Your task to perform on an android device: turn on location history Image 0: 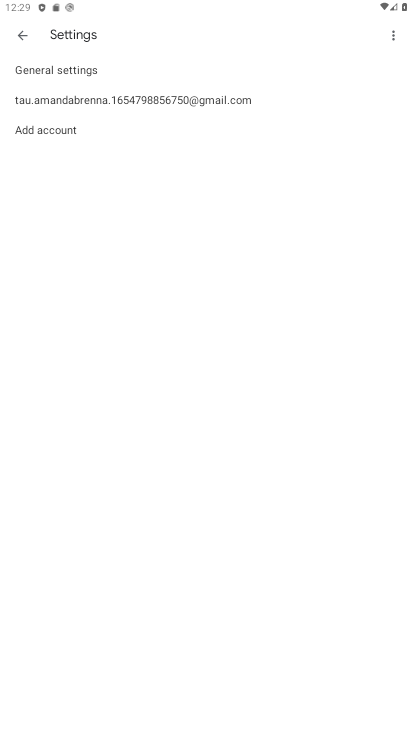
Step 0: press home button
Your task to perform on an android device: turn on location history Image 1: 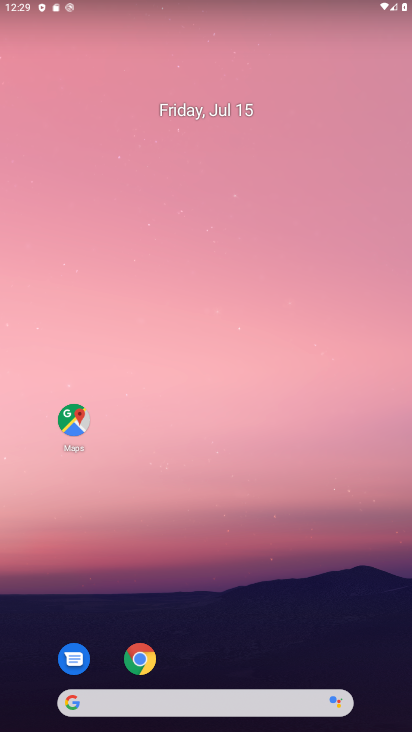
Step 1: click (77, 424)
Your task to perform on an android device: turn on location history Image 2: 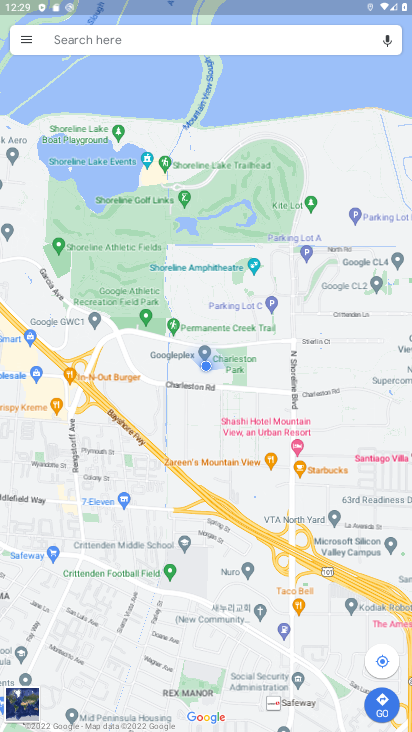
Step 2: click (25, 43)
Your task to perform on an android device: turn on location history Image 3: 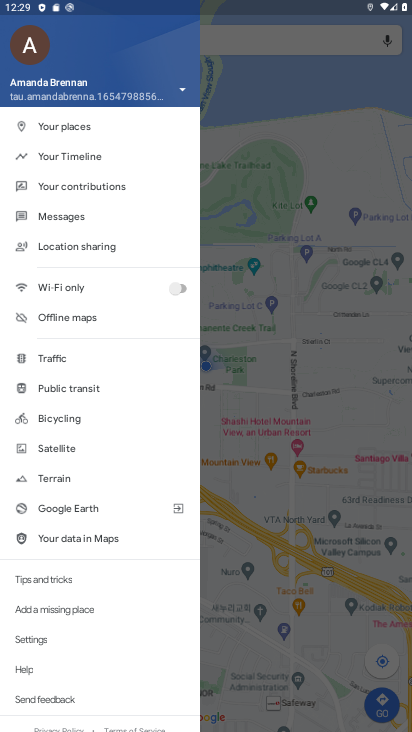
Step 3: click (105, 155)
Your task to perform on an android device: turn on location history Image 4: 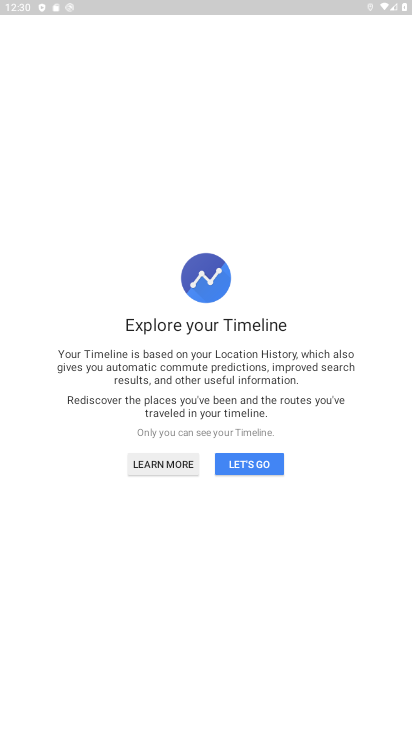
Step 4: click (250, 470)
Your task to perform on an android device: turn on location history Image 5: 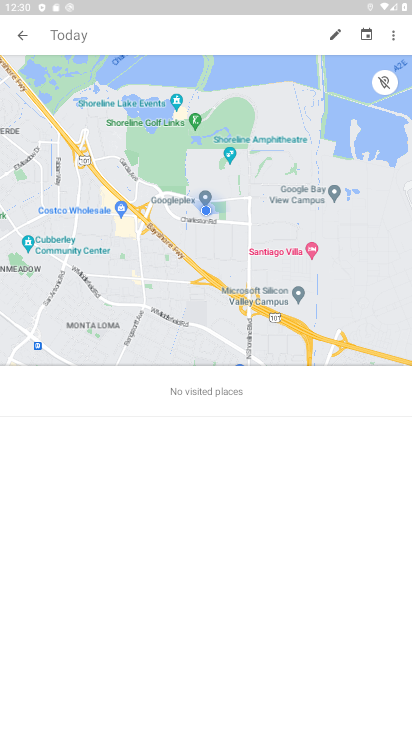
Step 5: click (395, 37)
Your task to perform on an android device: turn on location history Image 6: 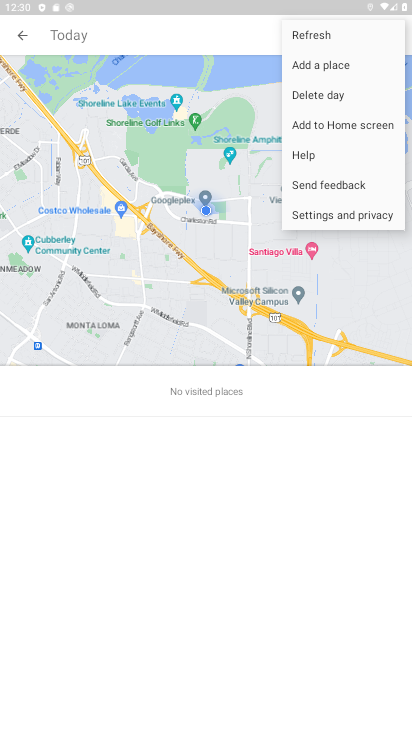
Step 6: click (333, 218)
Your task to perform on an android device: turn on location history Image 7: 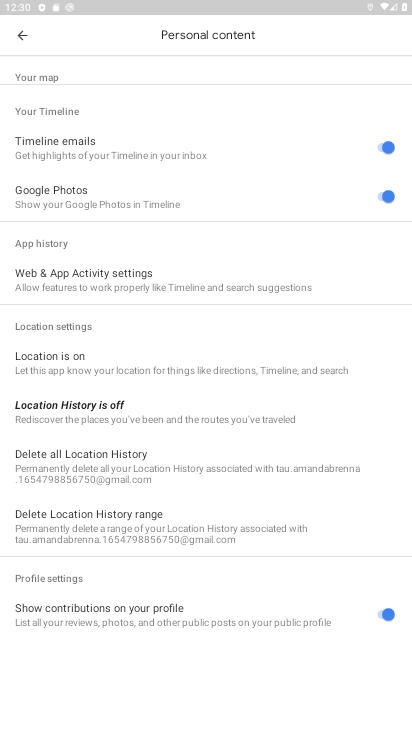
Step 7: click (254, 409)
Your task to perform on an android device: turn on location history Image 8: 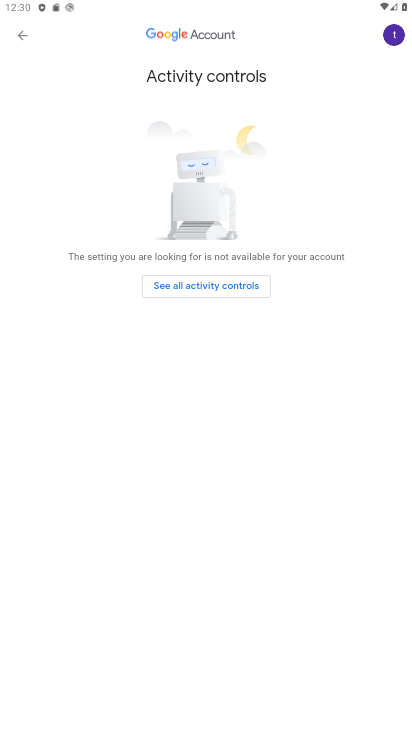
Step 8: task complete